Your task to perform on an android device: all mails in gmail Image 0: 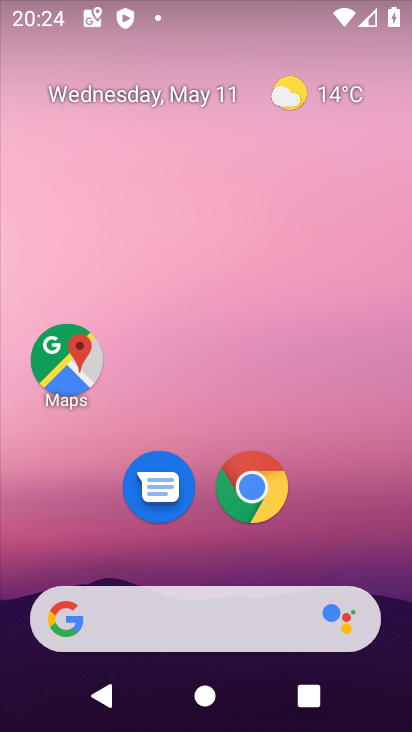
Step 0: drag from (226, 561) to (324, 181)
Your task to perform on an android device: all mails in gmail Image 1: 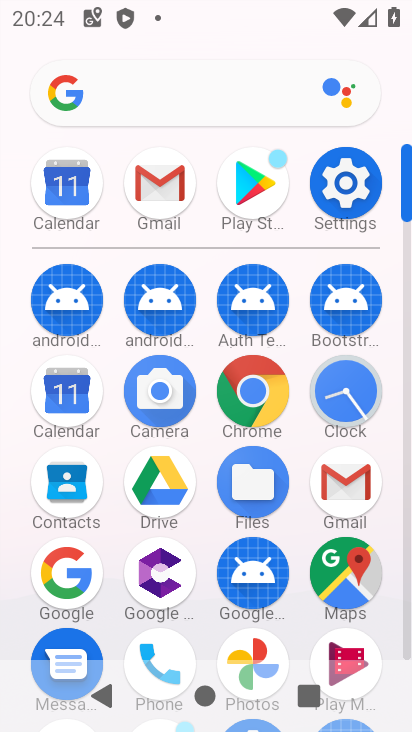
Step 1: click (153, 196)
Your task to perform on an android device: all mails in gmail Image 2: 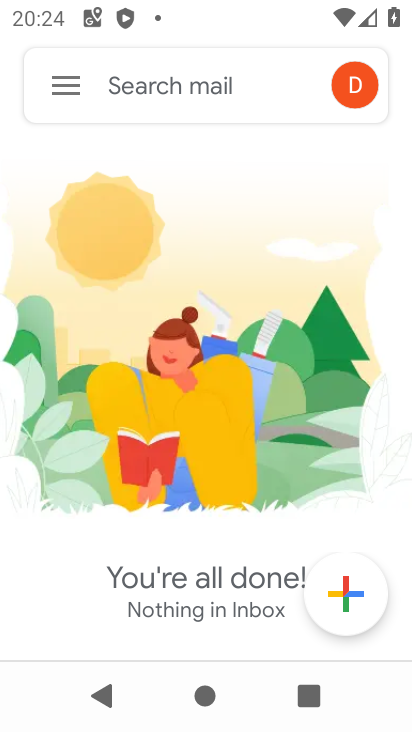
Step 2: click (75, 86)
Your task to perform on an android device: all mails in gmail Image 3: 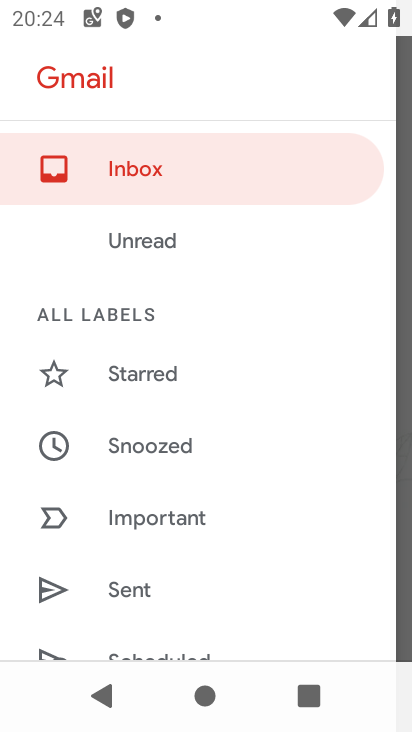
Step 3: drag from (137, 572) to (229, 135)
Your task to perform on an android device: all mails in gmail Image 4: 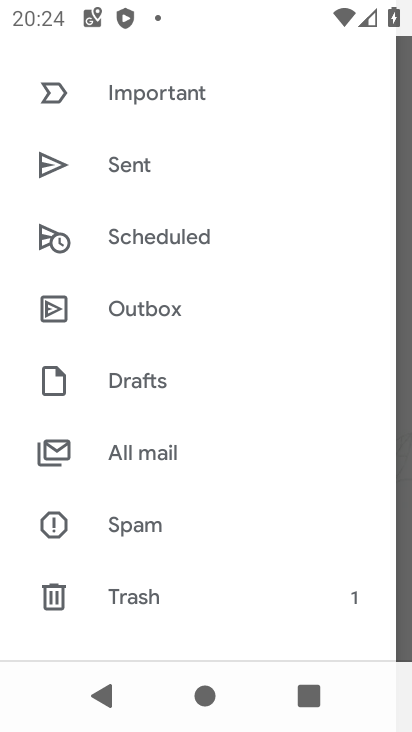
Step 4: click (149, 455)
Your task to perform on an android device: all mails in gmail Image 5: 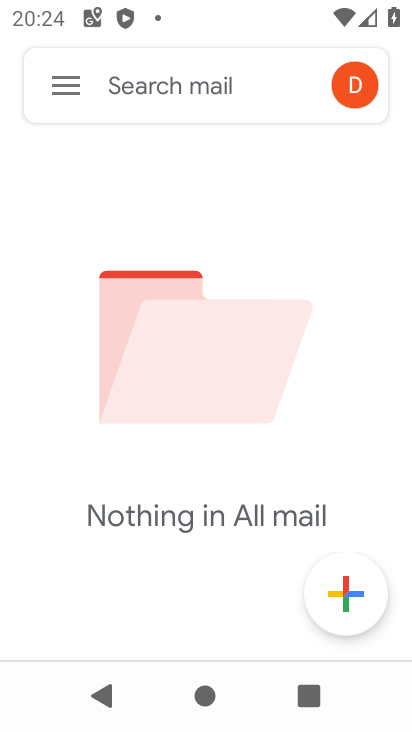
Step 5: task complete